Your task to perform on an android device: Go to sound settings Image 0: 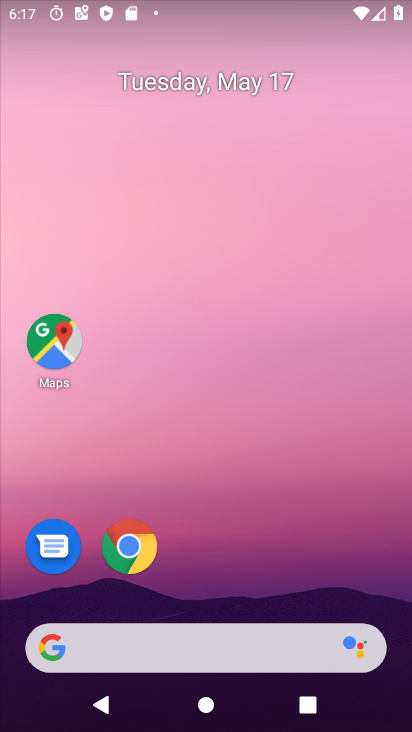
Step 0: drag from (203, 564) to (203, 17)
Your task to perform on an android device: Go to sound settings Image 1: 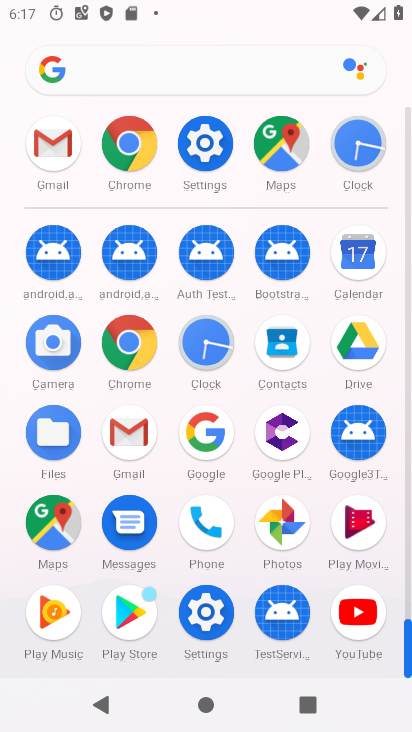
Step 1: click (211, 150)
Your task to perform on an android device: Go to sound settings Image 2: 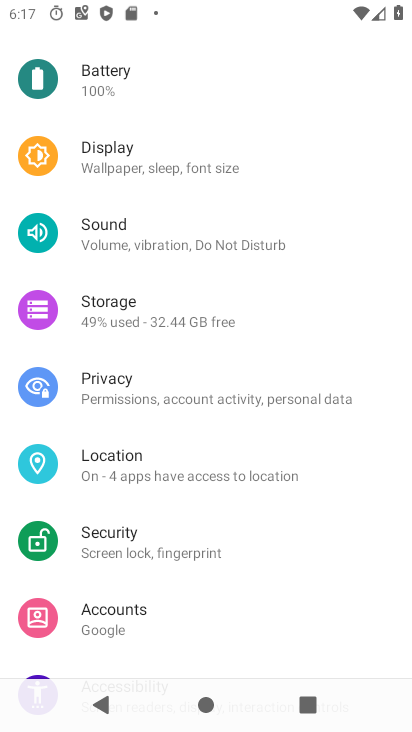
Step 2: click (179, 245)
Your task to perform on an android device: Go to sound settings Image 3: 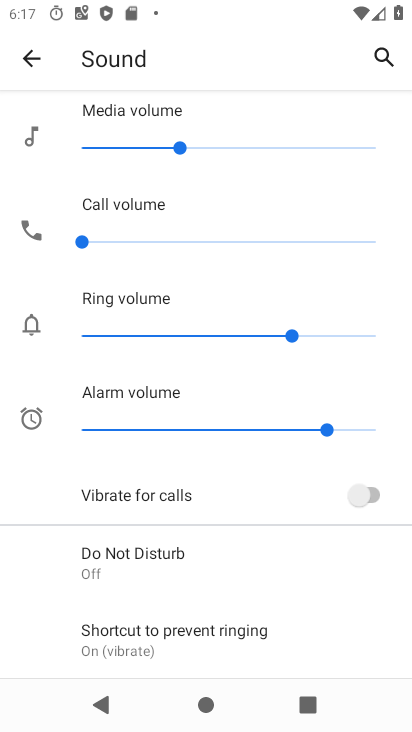
Step 3: task complete